Your task to perform on an android device: delete a single message in the gmail app Image 0: 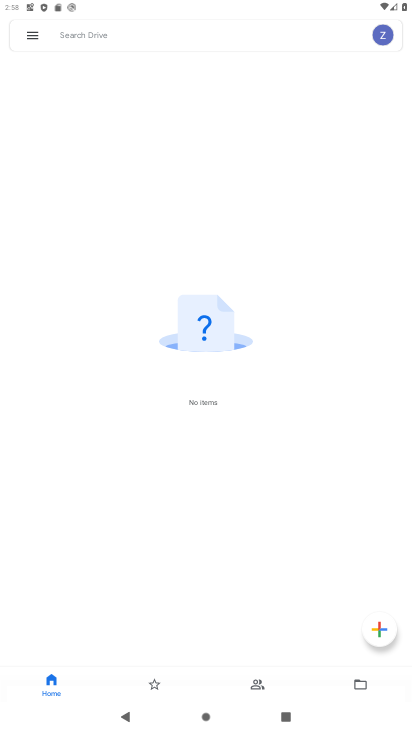
Step 0: press home button
Your task to perform on an android device: delete a single message in the gmail app Image 1: 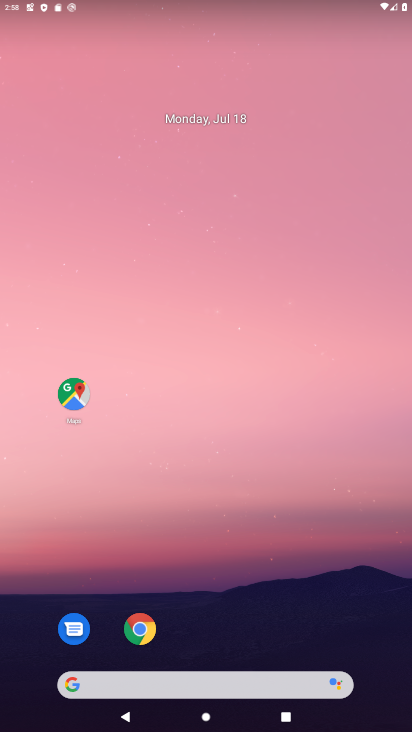
Step 1: drag from (193, 641) to (183, 223)
Your task to perform on an android device: delete a single message in the gmail app Image 2: 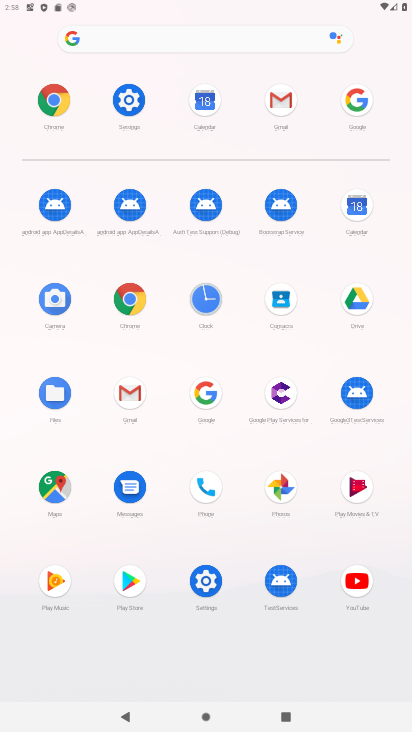
Step 2: click (268, 107)
Your task to perform on an android device: delete a single message in the gmail app Image 3: 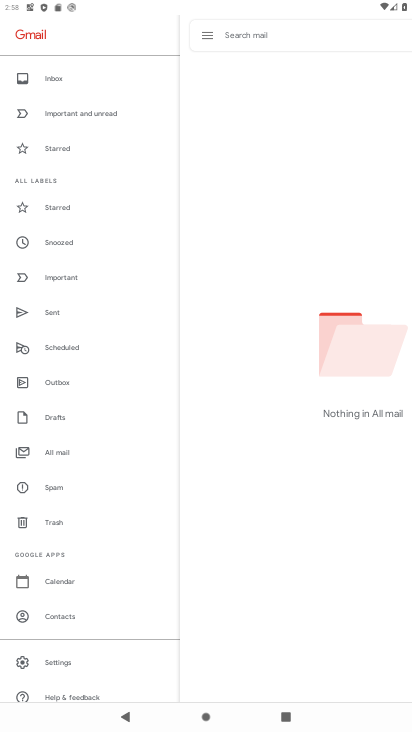
Step 3: click (66, 86)
Your task to perform on an android device: delete a single message in the gmail app Image 4: 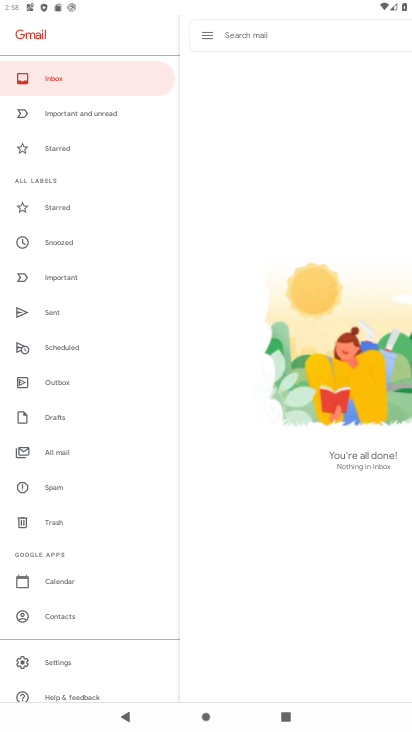
Step 4: task complete